Your task to perform on an android device: What's the weather today? Image 0: 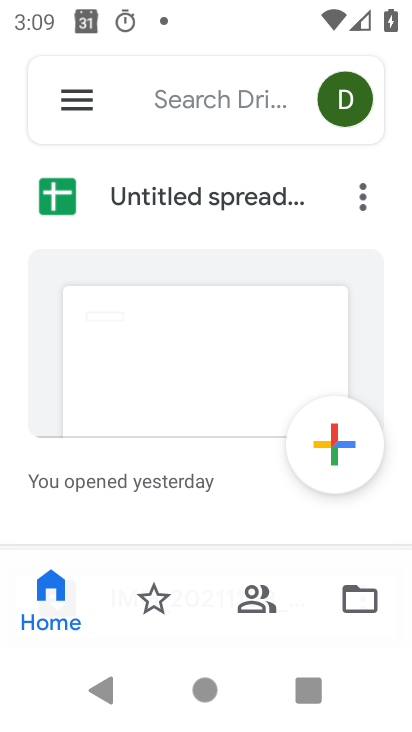
Step 0: press home button
Your task to perform on an android device: What's the weather today? Image 1: 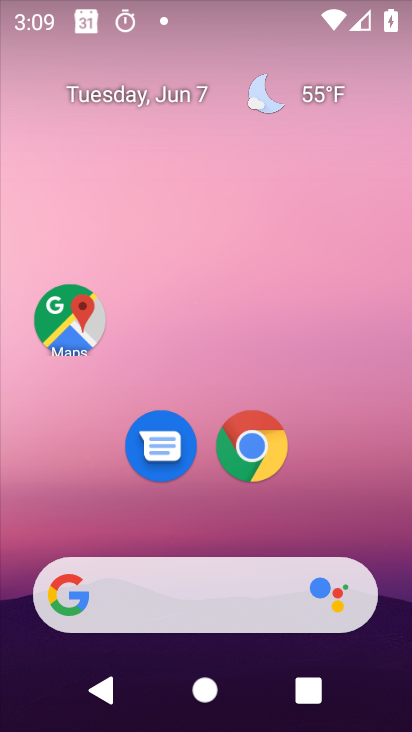
Step 1: click (318, 98)
Your task to perform on an android device: What's the weather today? Image 2: 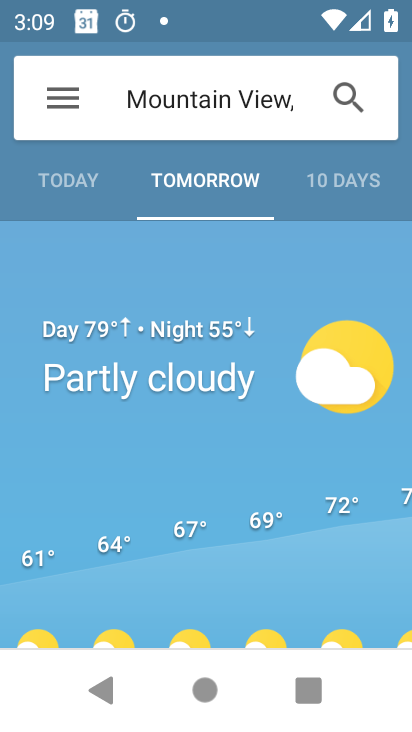
Step 2: click (79, 193)
Your task to perform on an android device: What's the weather today? Image 3: 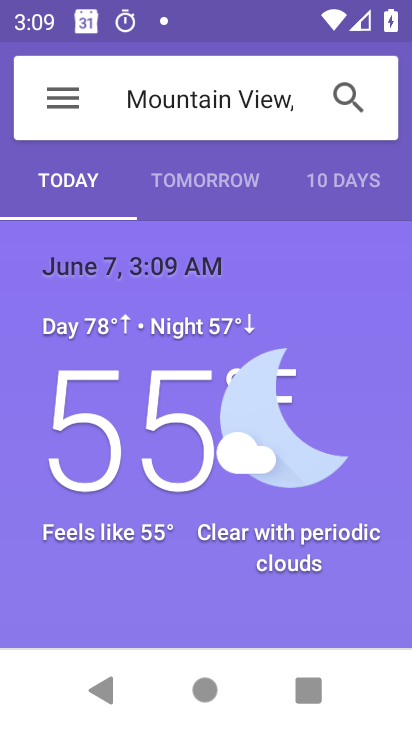
Step 3: task complete